Your task to perform on an android device: turn on the 12-hour format for clock Image 0: 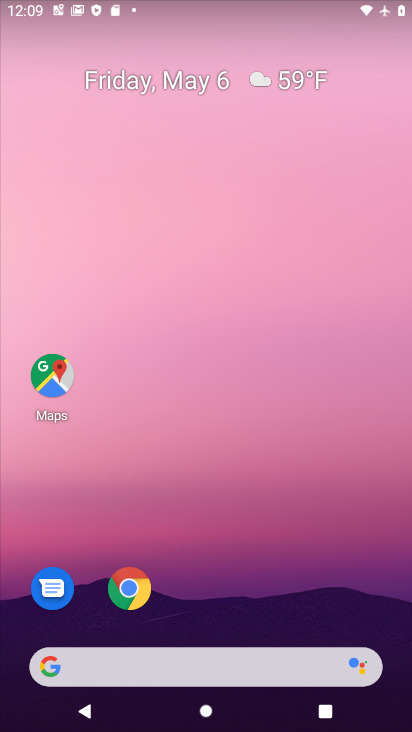
Step 0: drag from (219, 672) to (375, 136)
Your task to perform on an android device: turn on the 12-hour format for clock Image 1: 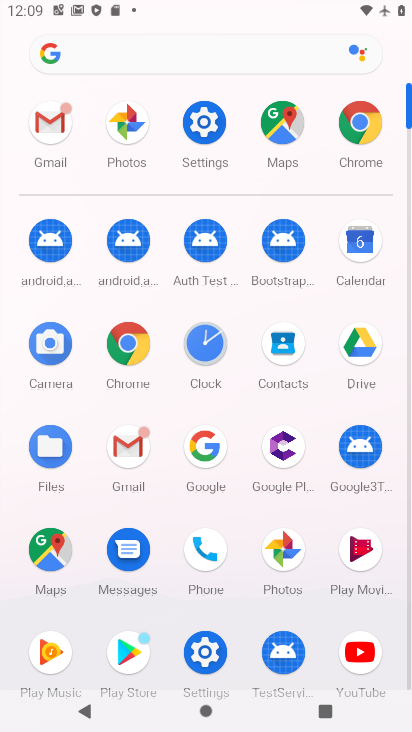
Step 1: click (203, 355)
Your task to perform on an android device: turn on the 12-hour format for clock Image 2: 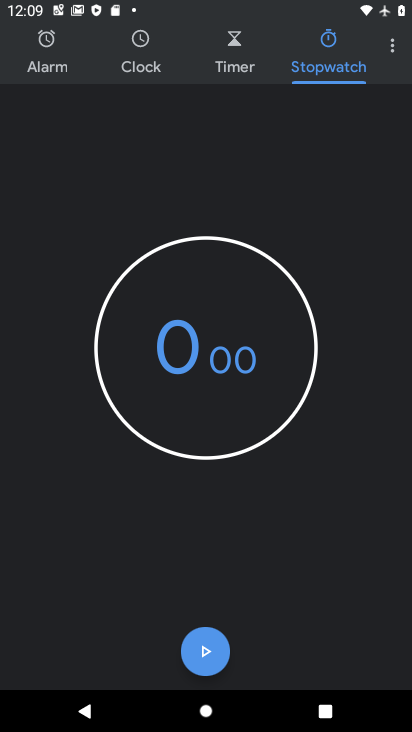
Step 2: click (396, 51)
Your task to perform on an android device: turn on the 12-hour format for clock Image 3: 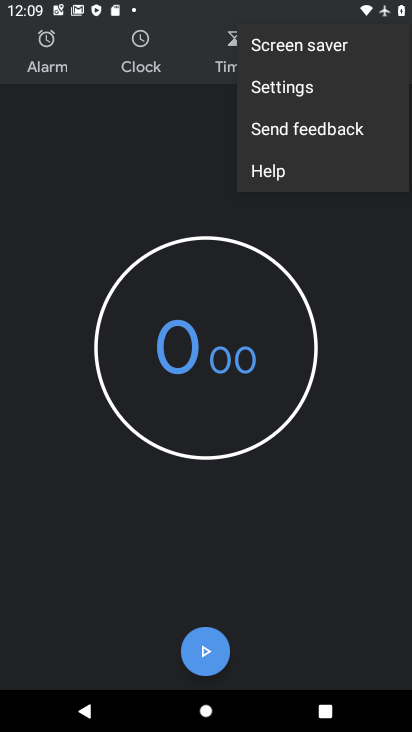
Step 3: click (297, 87)
Your task to perform on an android device: turn on the 12-hour format for clock Image 4: 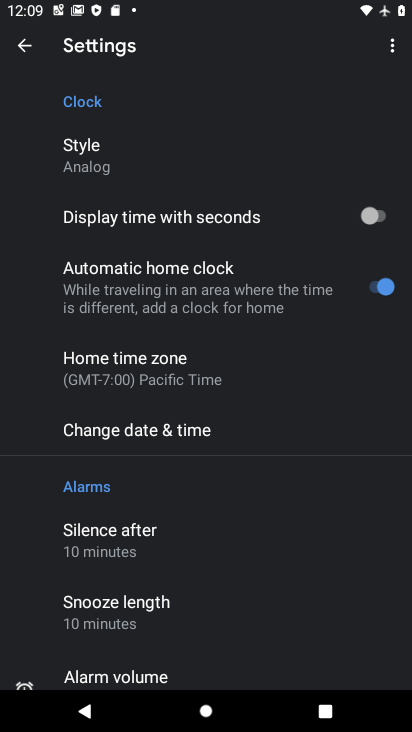
Step 4: click (121, 432)
Your task to perform on an android device: turn on the 12-hour format for clock Image 5: 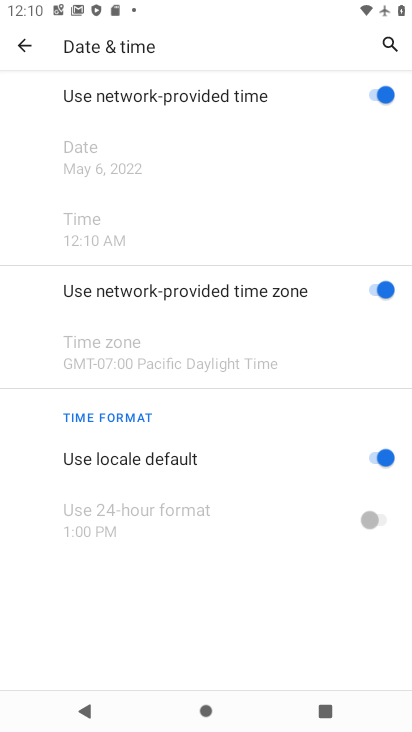
Step 5: task complete